Your task to perform on an android device: Open calendar and show me the fourth week of next month Image 0: 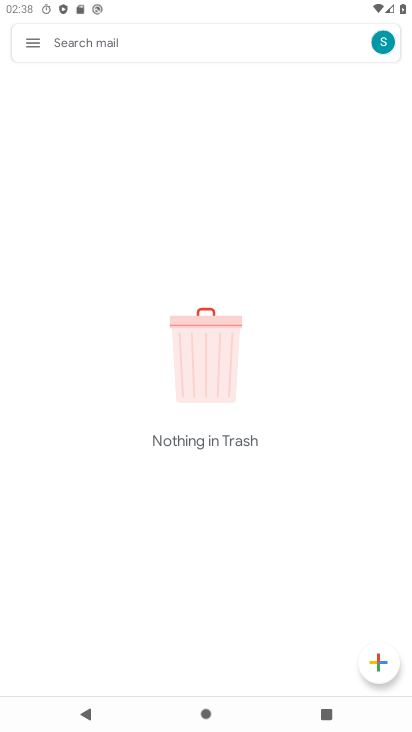
Step 0: press home button
Your task to perform on an android device: Open calendar and show me the fourth week of next month Image 1: 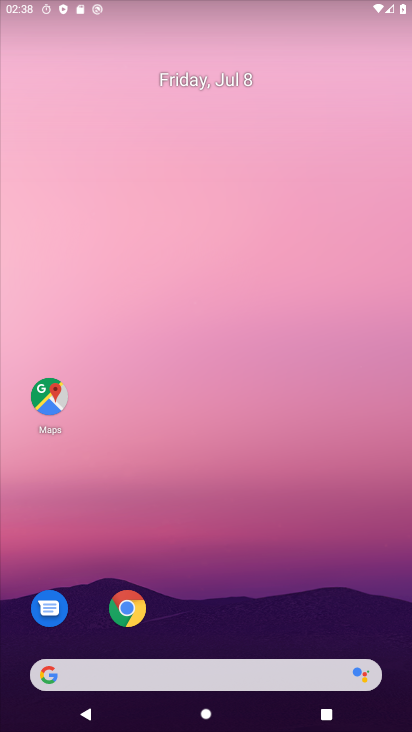
Step 1: drag from (201, 649) to (195, 117)
Your task to perform on an android device: Open calendar and show me the fourth week of next month Image 2: 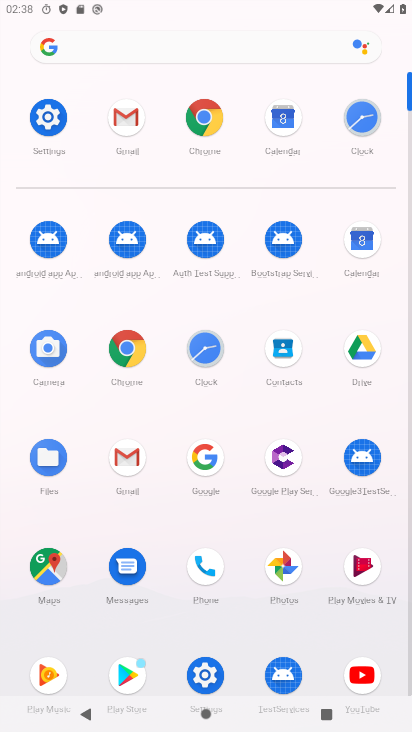
Step 2: click (361, 238)
Your task to perform on an android device: Open calendar and show me the fourth week of next month Image 3: 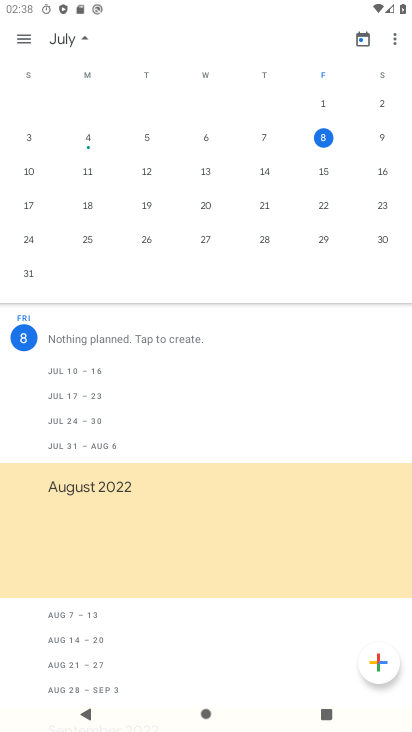
Step 3: drag from (368, 282) to (24, 276)
Your task to perform on an android device: Open calendar and show me the fourth week of next month Image 4: 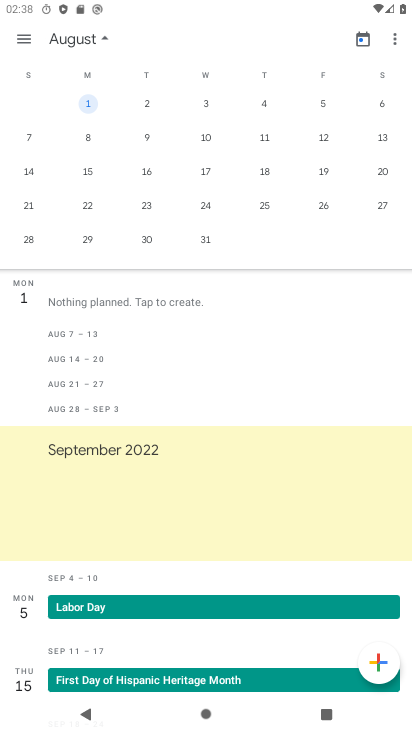
Step 4: click (201, 213)
Your task to perform on an android device: Open calendar and show me the fourth week of next month Image 5: 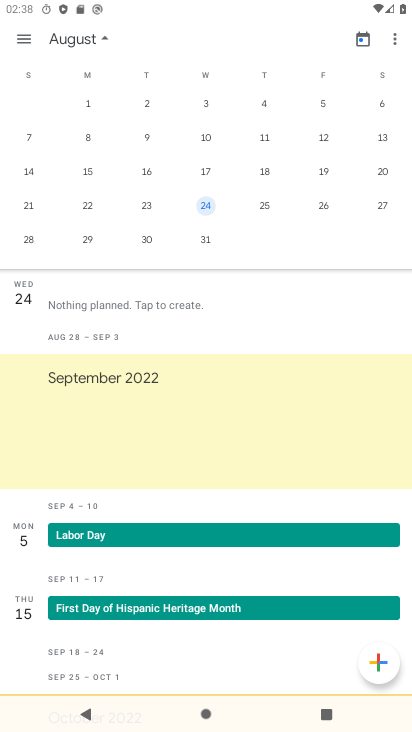
Step 5: task complete